Your task to perform on an android device: open chrome privacy settings Image 0: 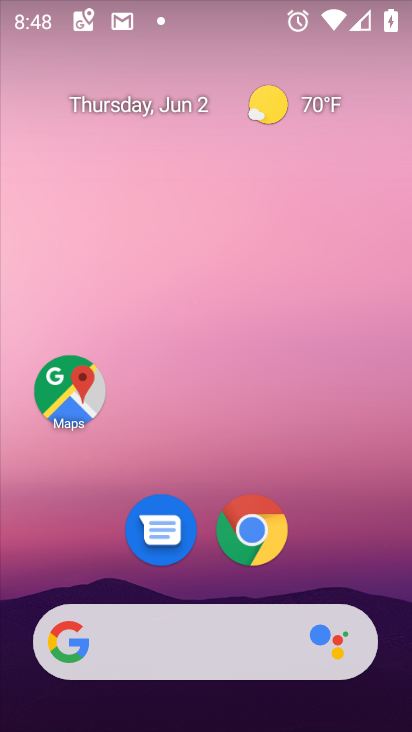
Step 0: drag from (210, 616) to (208, 318)
Your task to perform on an android device: open chrome privacy settings Image 1: 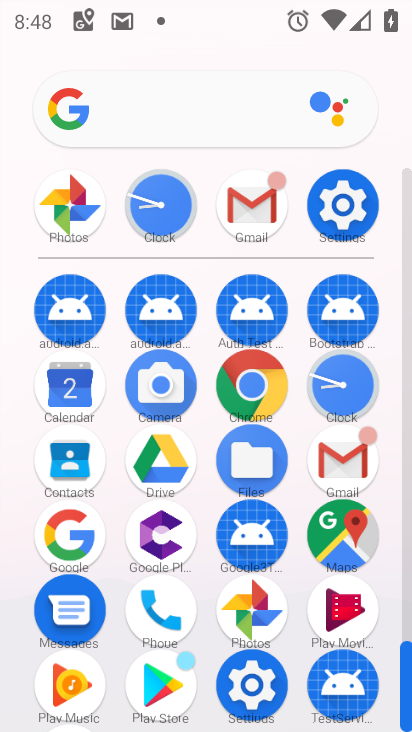
Step 1: click (247, 391)
Your task to perform on an android device: open chrome privacy settings Image 2: 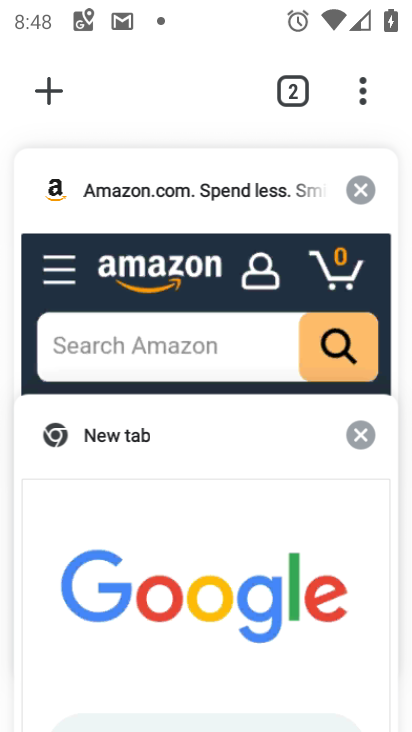
Step 2: click (362, 90)
Your task to perform on an android device: open chrome privacy settings Image 3: 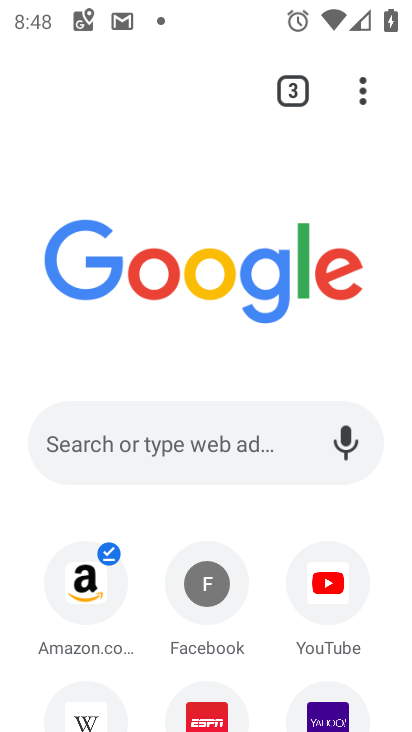
Step 3: click (360, 92)
Your task to perform on an android device: open chrome privacy settings Image 4: 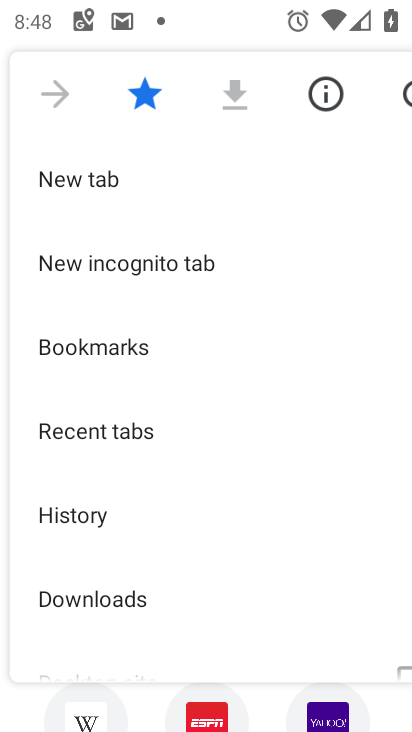
Step 4: drag from (93, 607) to (133, 242)
Your task to perform on an android device: open chrome privacy settings Image 5: 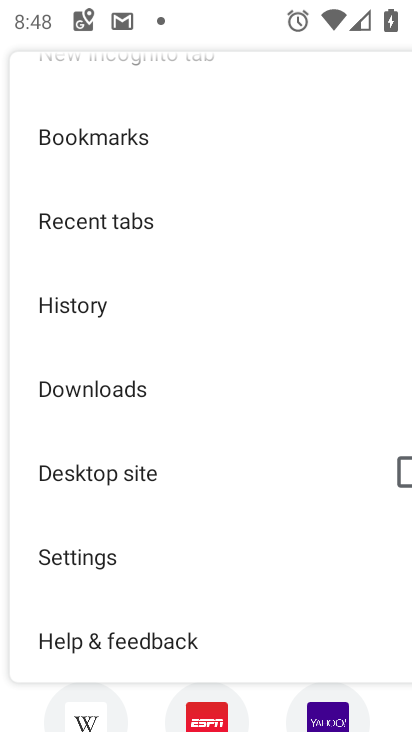
Step 5: click (94, 569)
Your task to perform on an android device: open chrome privacy settings Image 6: 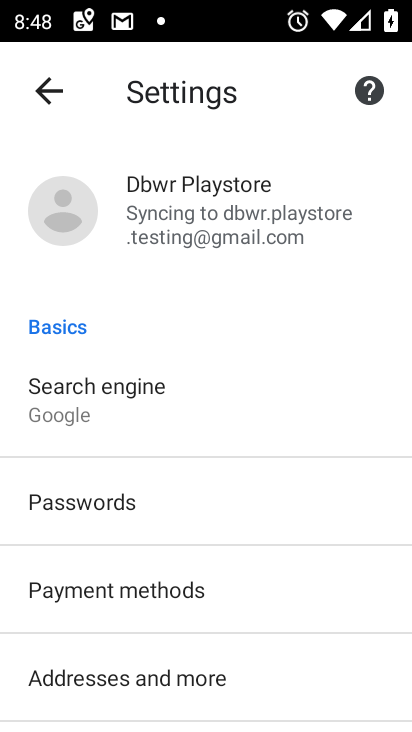
Step 6: drag from (116, 702) to (156, 363)
Your task to perform on an android device: open chrome privacy settings Image 7: 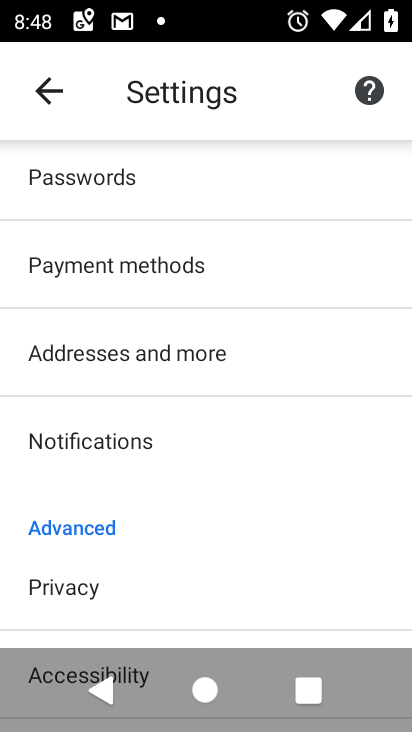
Step 7: click (87, 598)
Your task to perform on an android device: open chrome privacy settings Image 8: 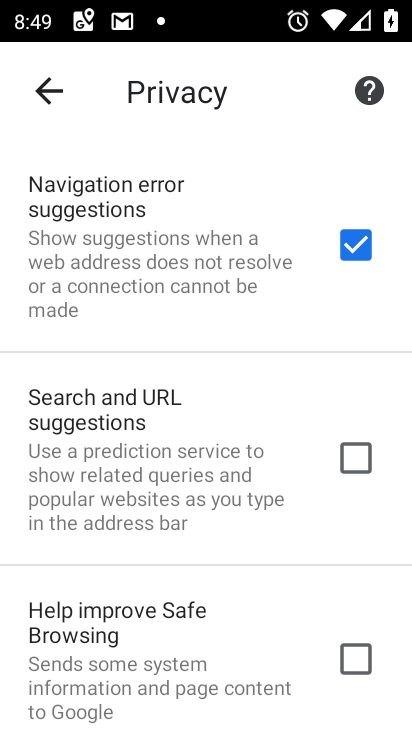
Step 8: task complete